Your task to perform on an android device: choose inbox layout in the gmail app Image 0: 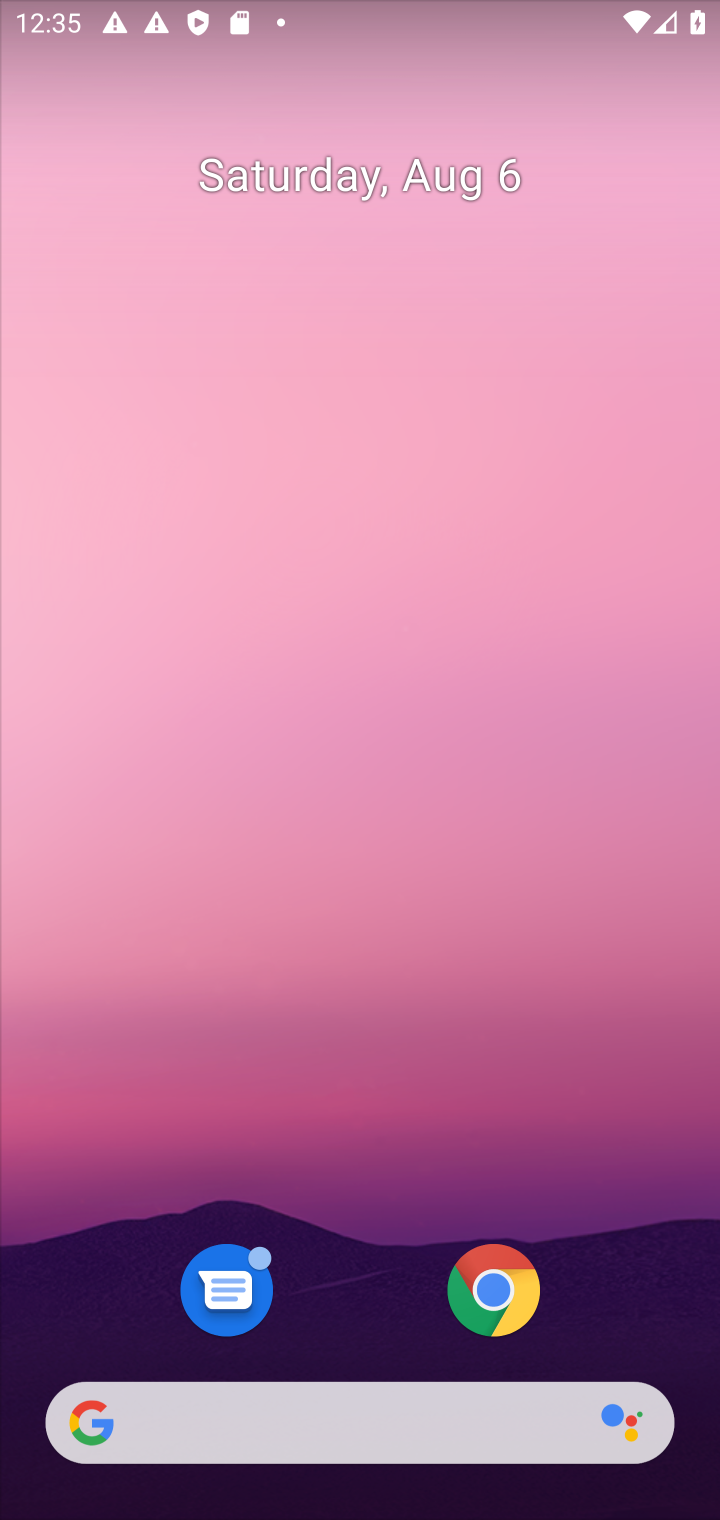
Step 0: drag from (405, 1339) to (390, 310)
Your task to perform on an android device: choose inbox layout in the gmail app Image 1: 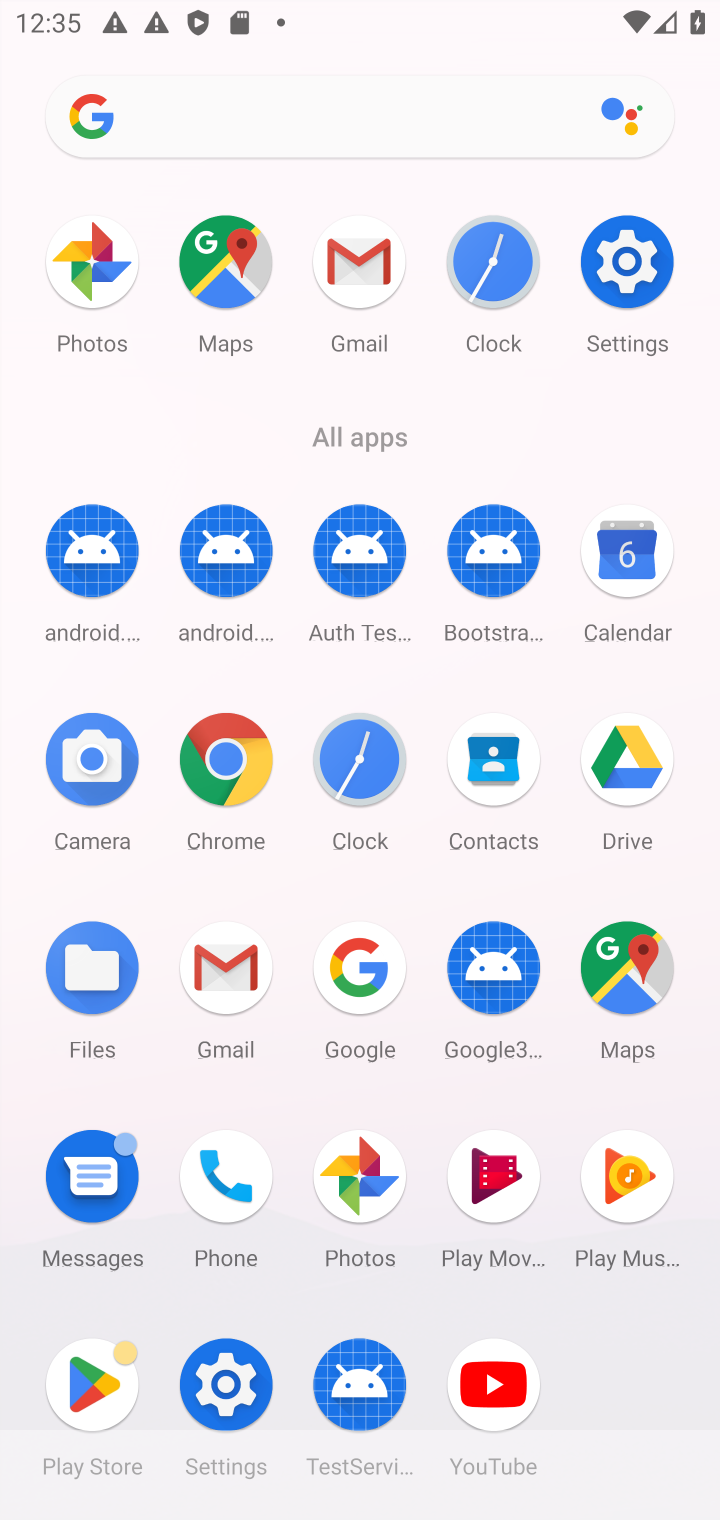
Step 1: click (232, 976)
Your task to perform on an android device: choose inbox layout in the gmail app Image 2: 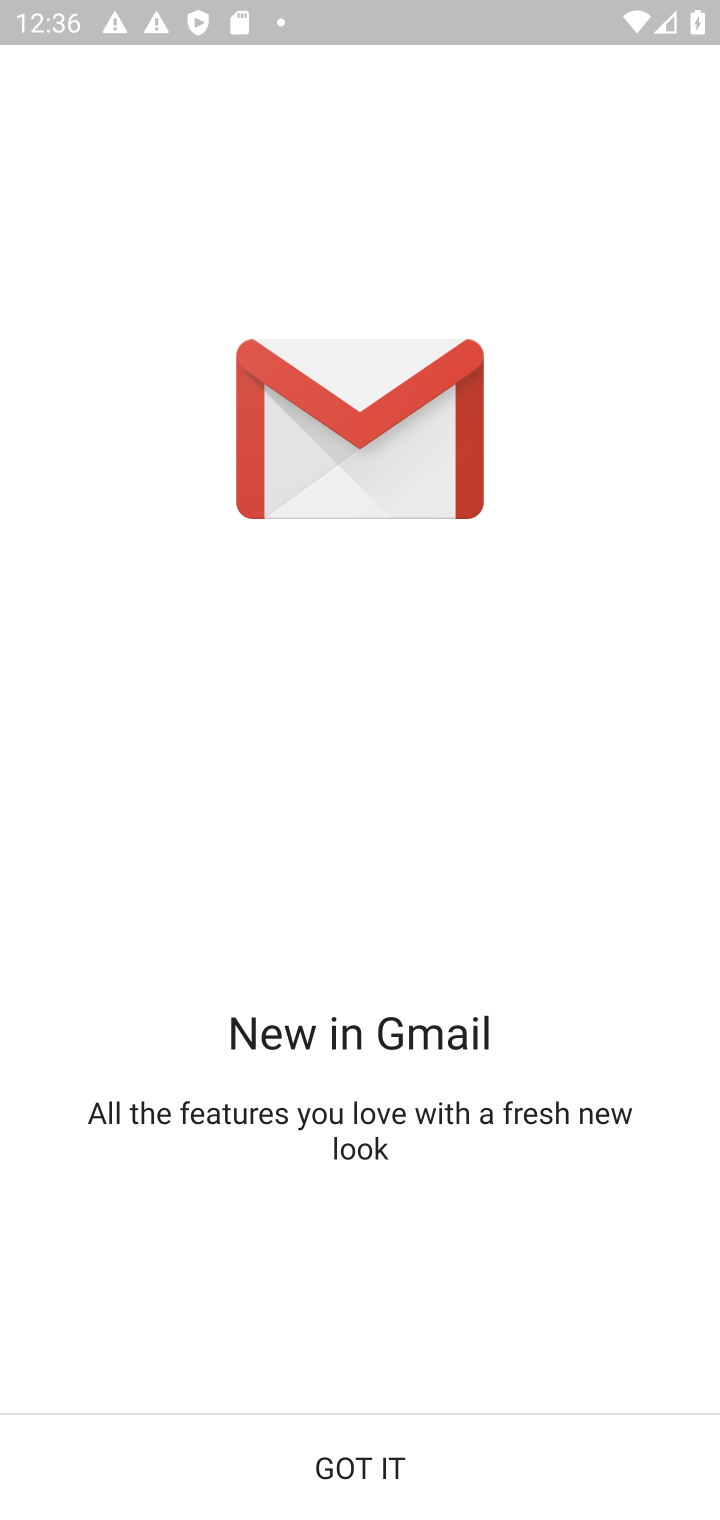
Step 2: click (300, 1453)
Your task to perform on an android device: choose inbox layout in the gmail app Image 3: 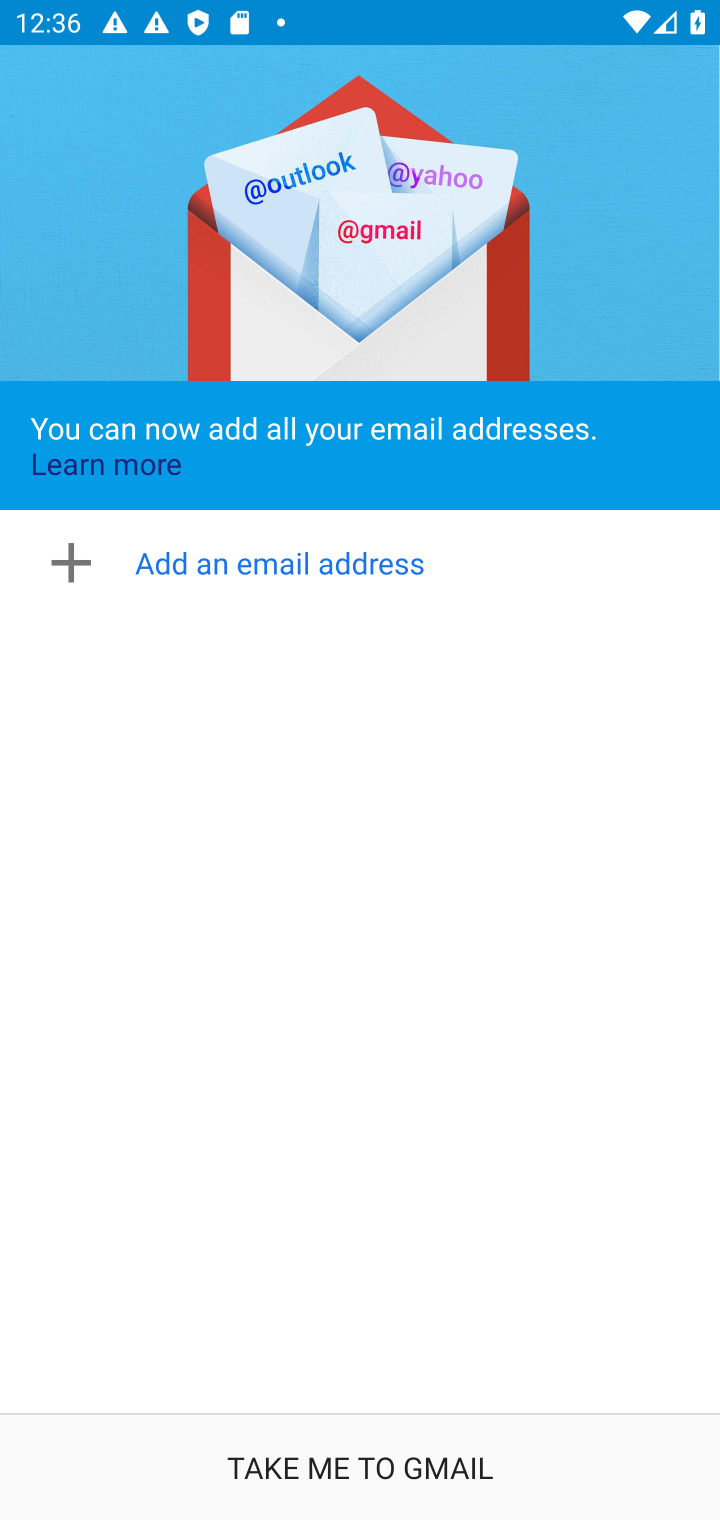
Step 3: click (247, 1493)
Your task to perform on an android device: choose inbox layout in the gmail app Image 4: 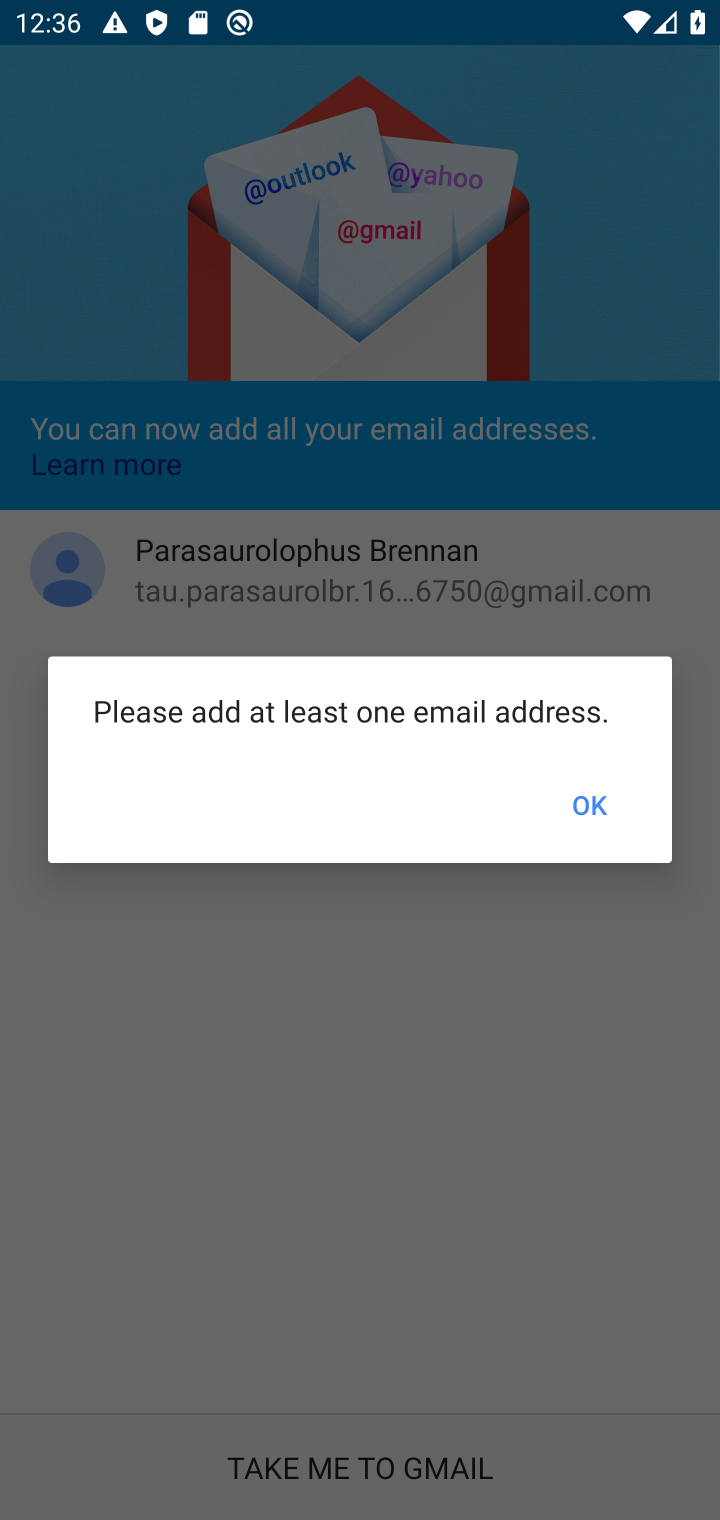
Step 4: click (567, 800)
Your task to perform on an android device: choose inbox layout in the gmail app Image 5: 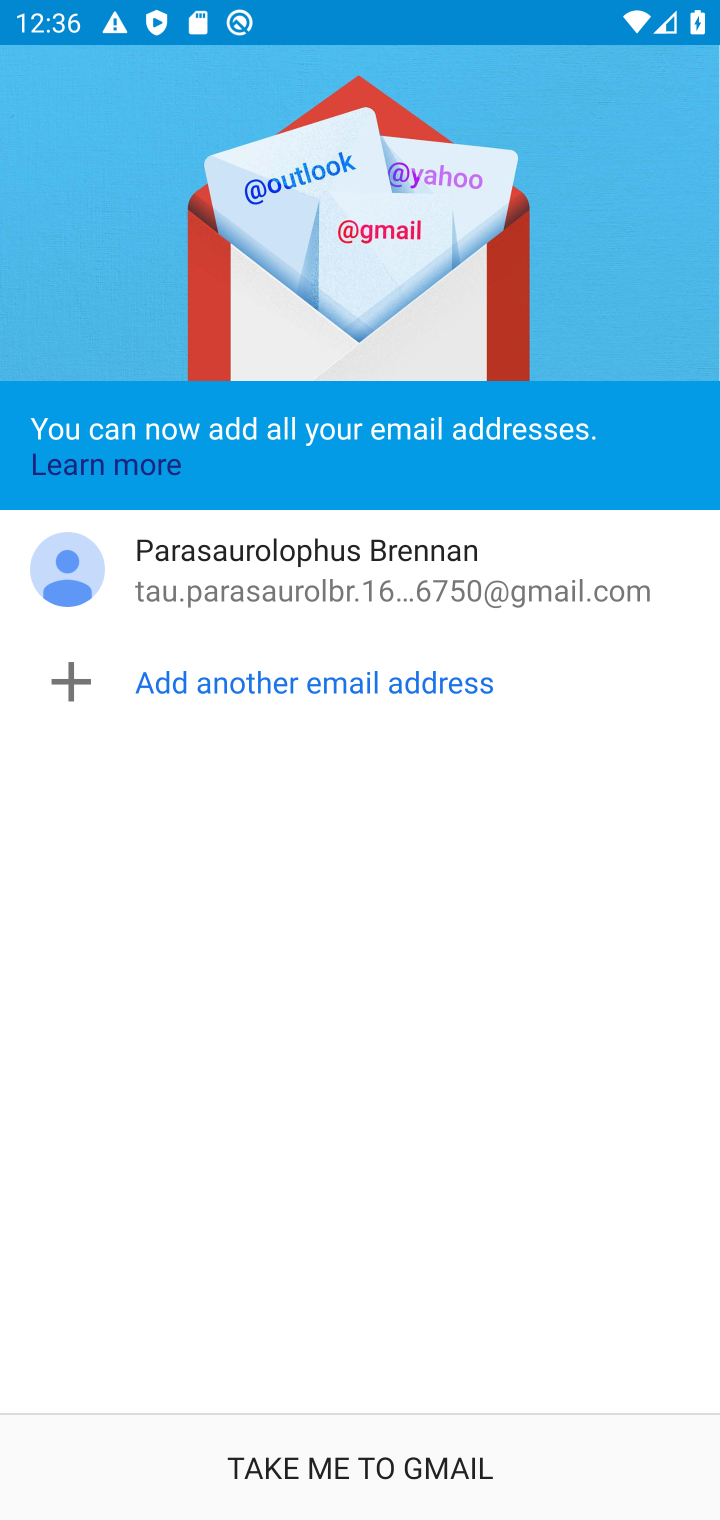
Step 5: click (307, 1436)
Your task to perform on an android device: choose inbox layout in the gmail app Image 6: 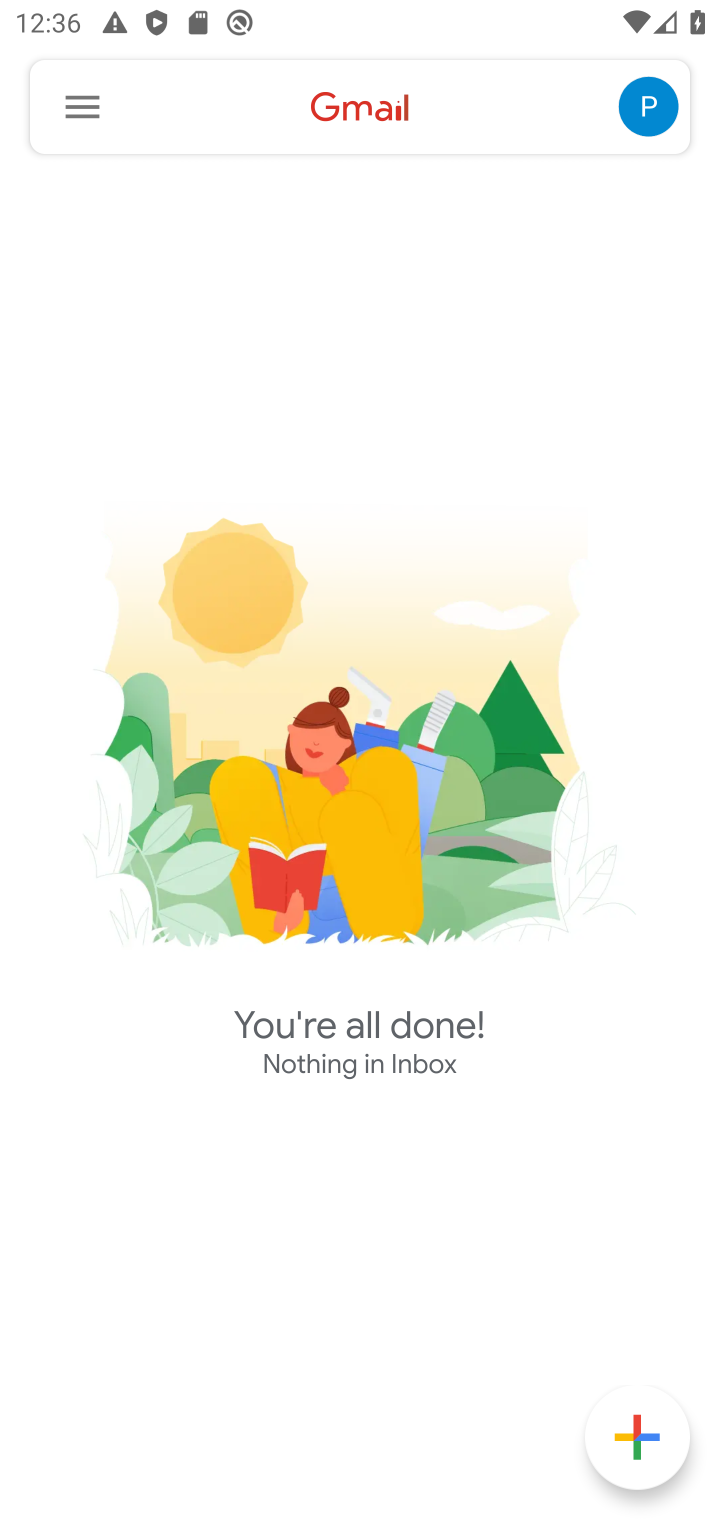
Step 6: task complete